Your task to perform on an android device: Show the shopping cart on costco. Add "razer deathadder" to the cart on costco Image 0: 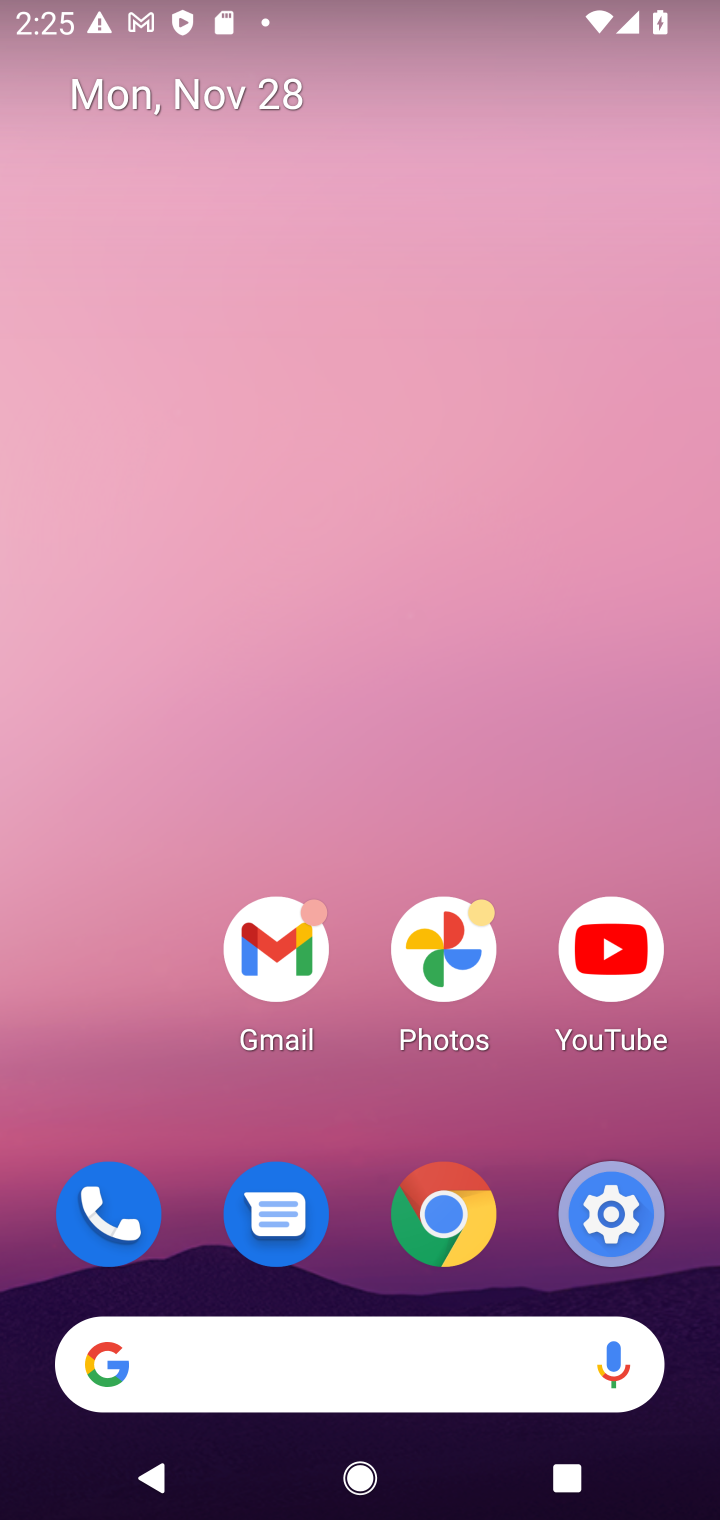
Step 0: click (404, 1382)
Your task to perform on an android device: Show the shopping cart on costco. Add "razer deathadder" to the cart on costco Image 1: 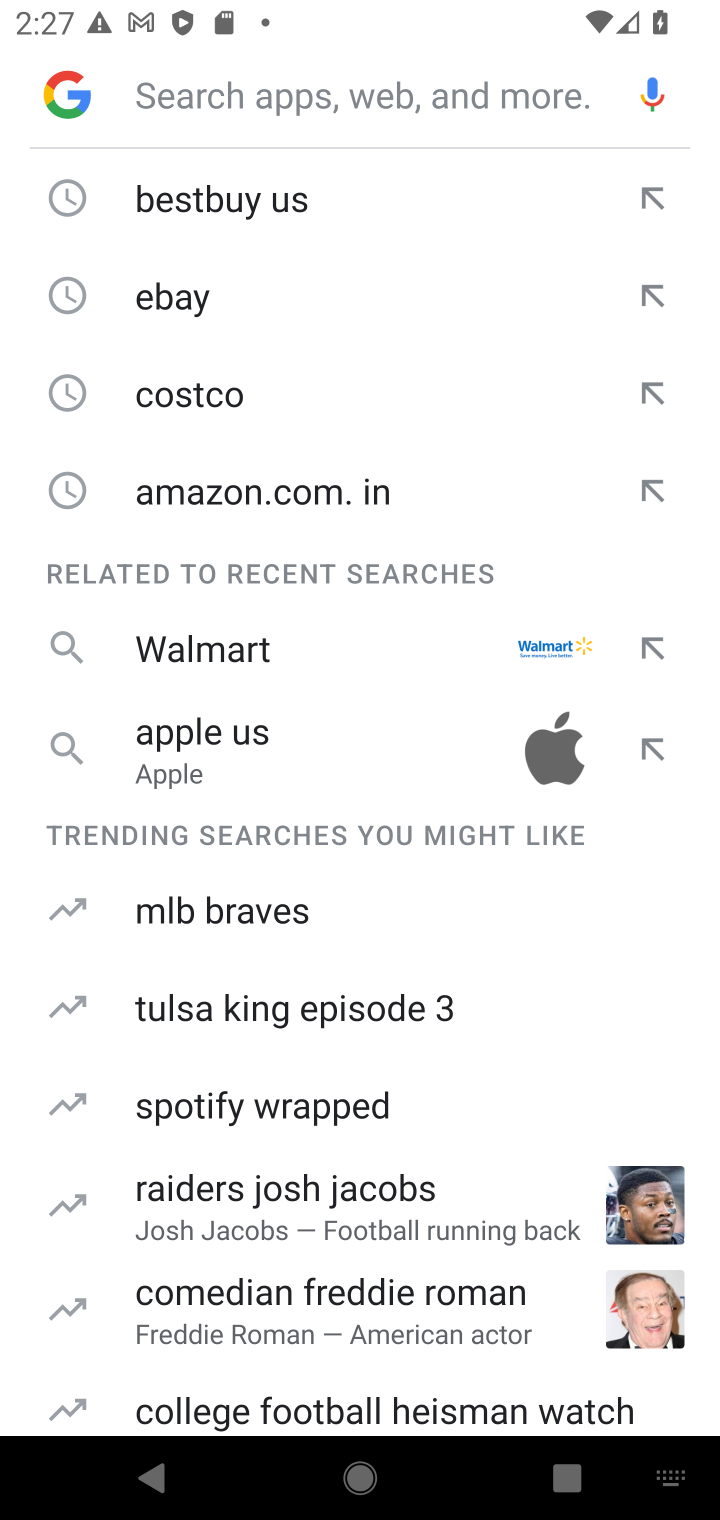
Step 1: click (270, 439)
Your task to perform on an android device: Show the shopping cart on costco. Add "razer deathadder" to the cart on costco Image 2: 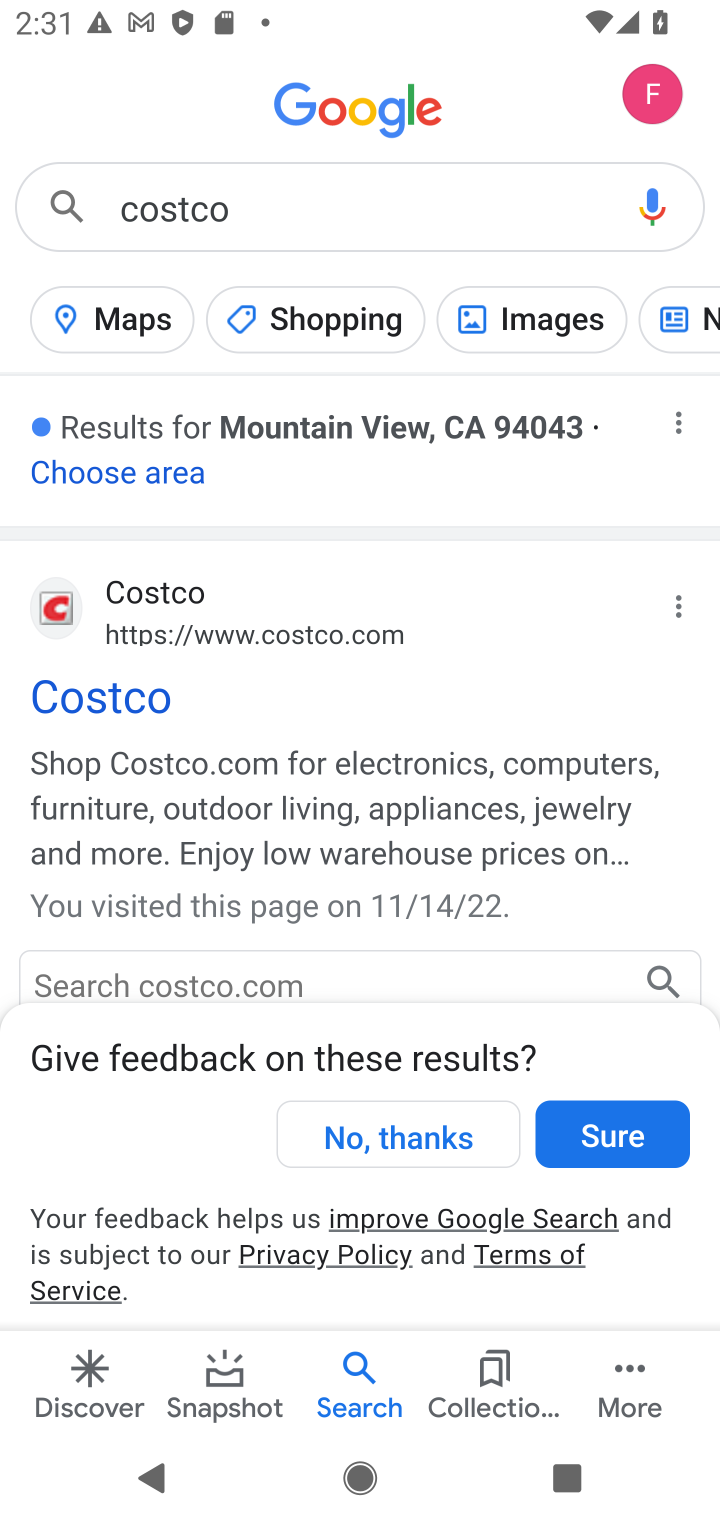
Step 2: task complete